Your task to perform on an android device: Open the phone app and click the voicemail tab. Image 0: 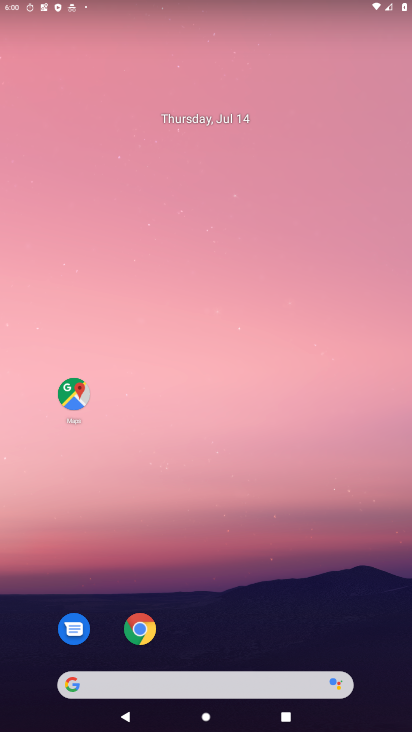
Step 0: drag from (306, 643) to (333, 5)
Your task to perform on an android device: Open the phone app and click the voicemail tab. Image 1: 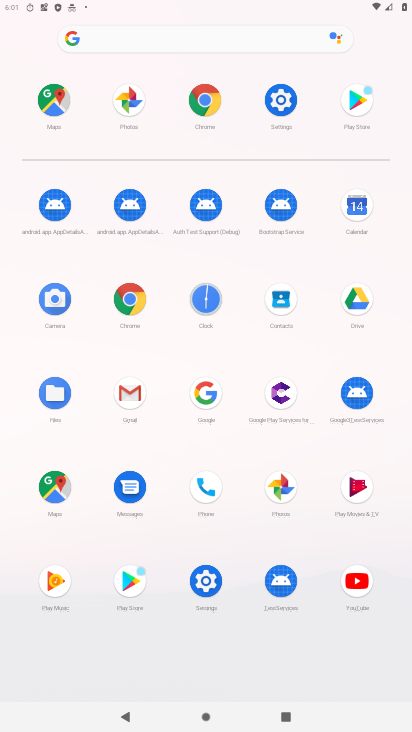
Step 1: click (204, 488)
Your task to perform on an android device: Open the phone app and click the voicemail tab. Image 2: 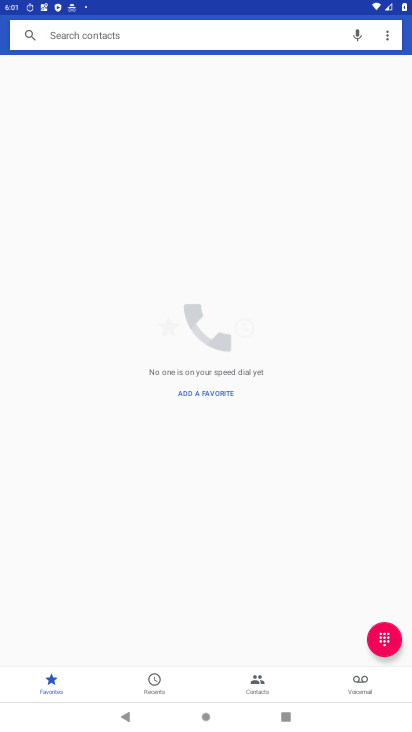
Step 2: click (359, 672)
Your task to perform on an android device: Open the phone app and click the voicemail tab. Image 3: 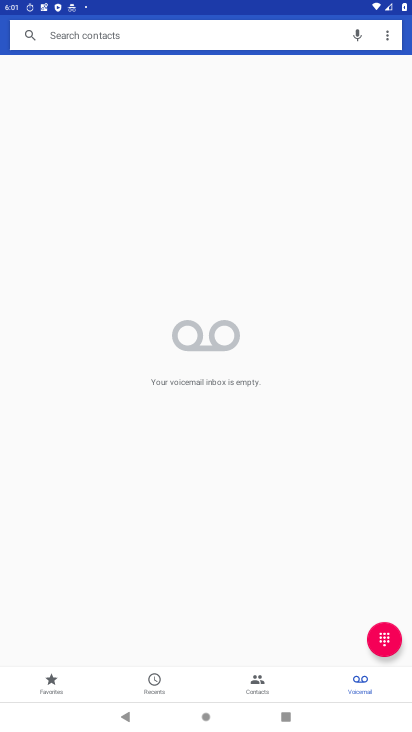
Step 3: task complete